Your task to perform on an android device: Open calendar and show me the first week of next month Image 0: 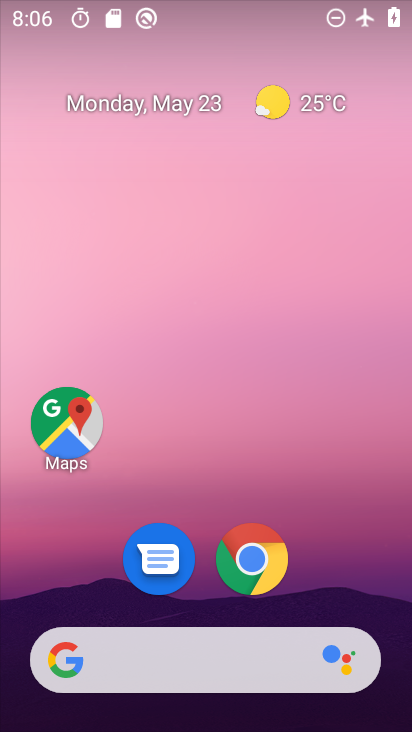
Step 0: drag from (395, 649) to (242, 0)
Your task to perform on an android device: Open calendar and show me the first week of next month Image 1: 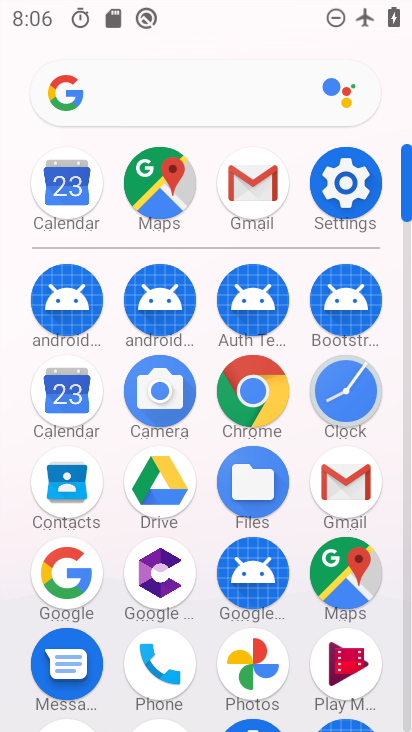
Step 1: click (72, 388)
Your task to perform on an android device: Open calendar and show me the first week of next month Image 2: 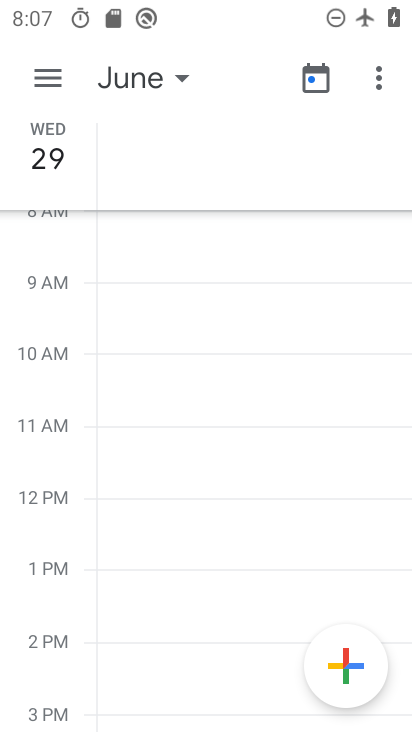
Step 2: click (113, 81)
Your task to perform on an android device: Open calendar and show me the first week of next month Image 3: 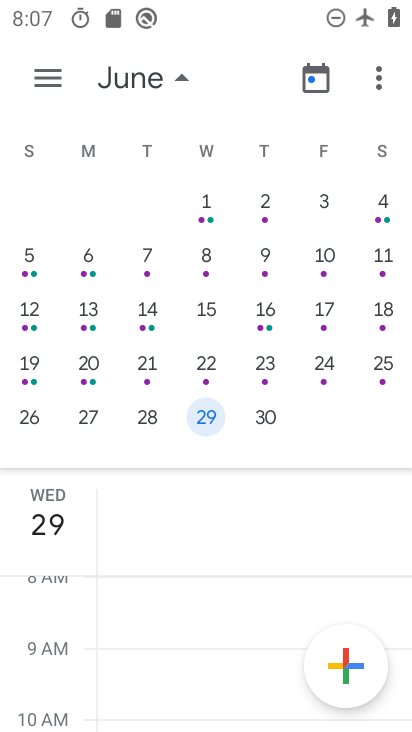
Step 3: drag from (372, 284) to (47, 268)
Your task to perform on an android device: Open calendar and show me the first week of next month Image 4: 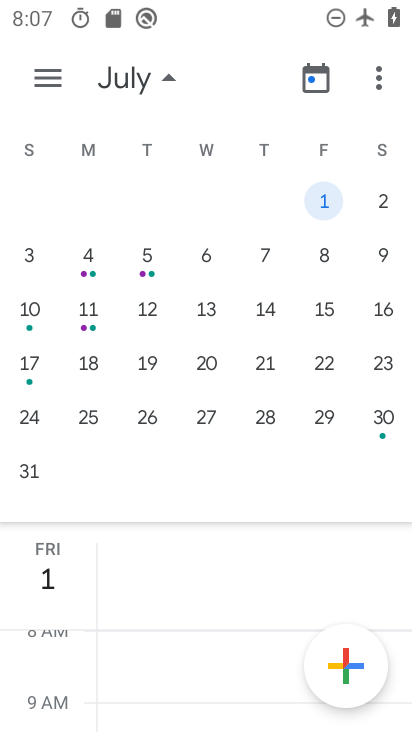
Step 4: click (82, 273)
Your task to perform on an android device: Open calendar and show me the first week of next month Image 5: 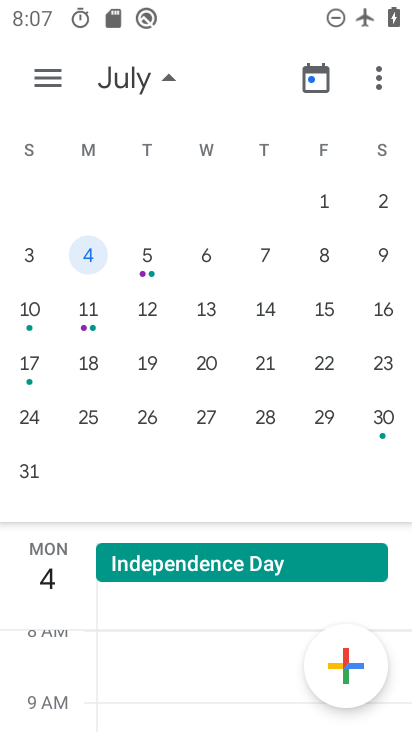
Step 5: task complete